Your task to perform on an android device: turn pop-ups off in chrome Image 0: 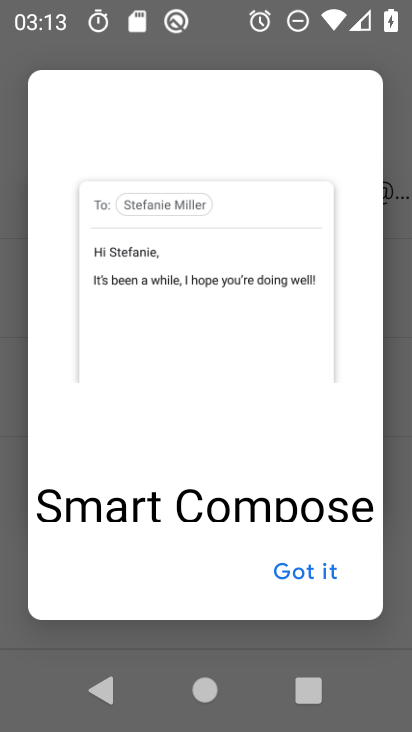
Step 0: press home button
Your task to perform on an android device: turn pop-ups off in chrome Image 1: 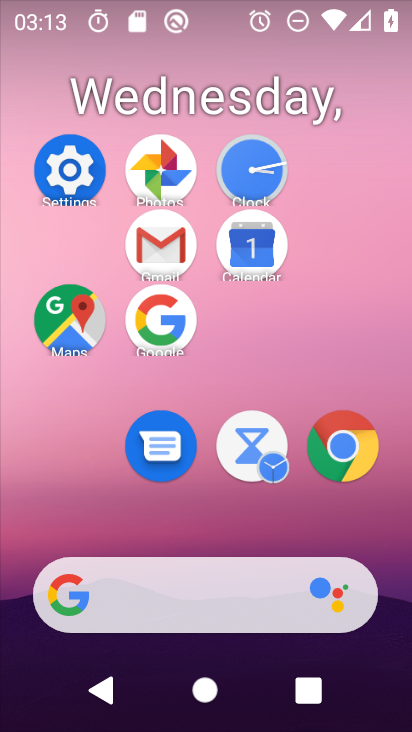
Step 1: click (370, 422)
Your task to perform on an android device: turn pop-ups off in chrome Image 2: 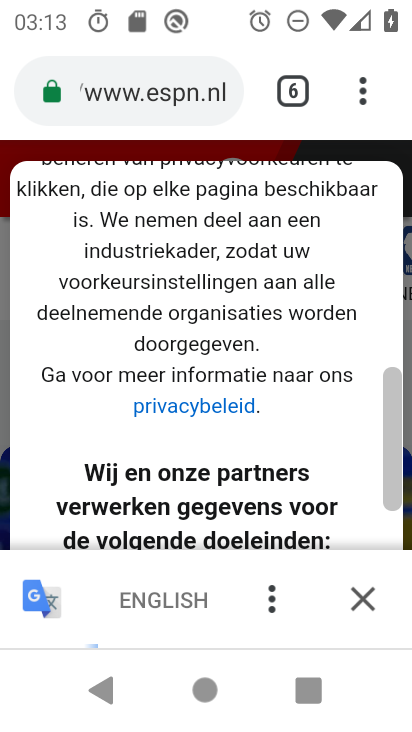
Step 2: click (367, 89)
Your task to perform on an android device: turn pop-ups off in chrome Image 3: 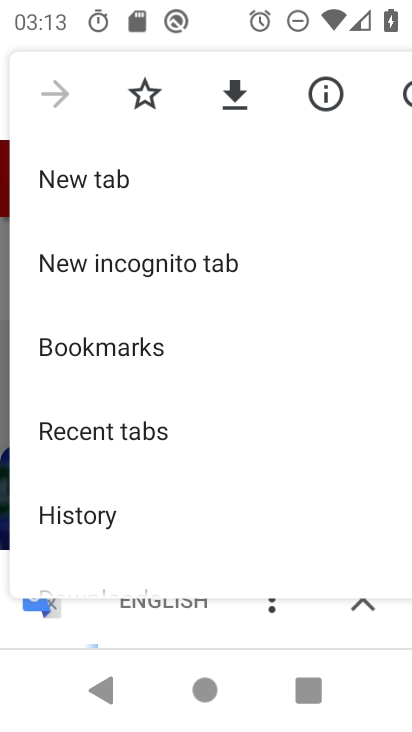
Step 3: drag from (228, 446) to (262, 126)
Your task to perform on an android device: turn pop-ups off in chrome Image 4: 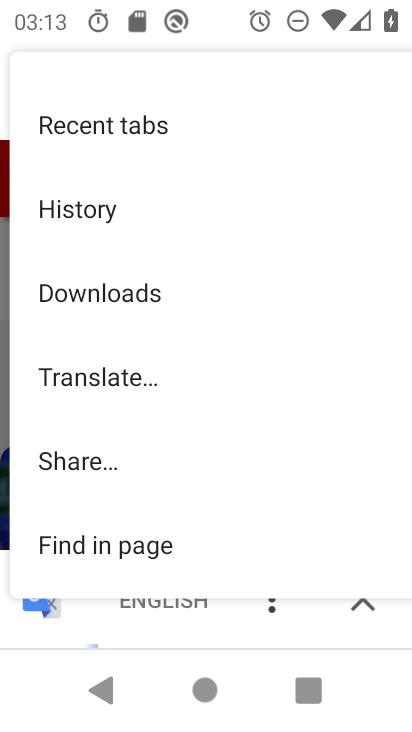
Step 4: drag from (248, 455) to (244, 42)
Your task to perform on an android device: turn pop-ups off in chrome Image 5: 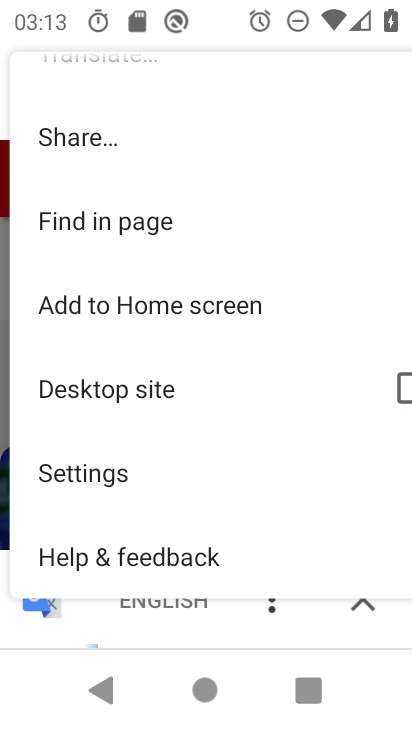
Step 5: click (186, 473)
Your task to perform on an android device: turn pop-ups off in chrome Image 6: 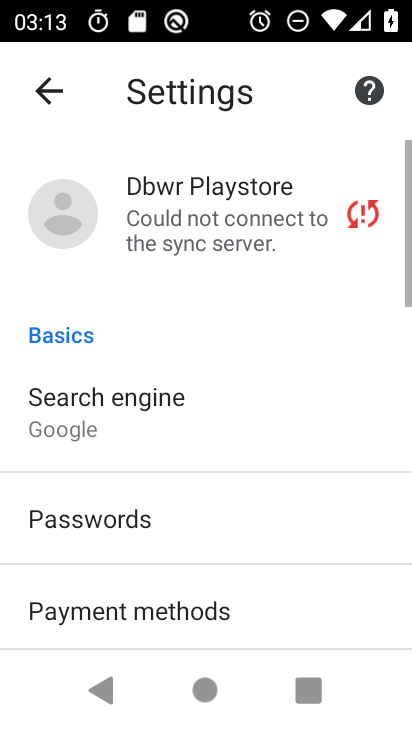
Step 6: drag from (186, 473) to (205, 67)
Your task to perform on an android device: turn pop-ups off in chrome Image 7: 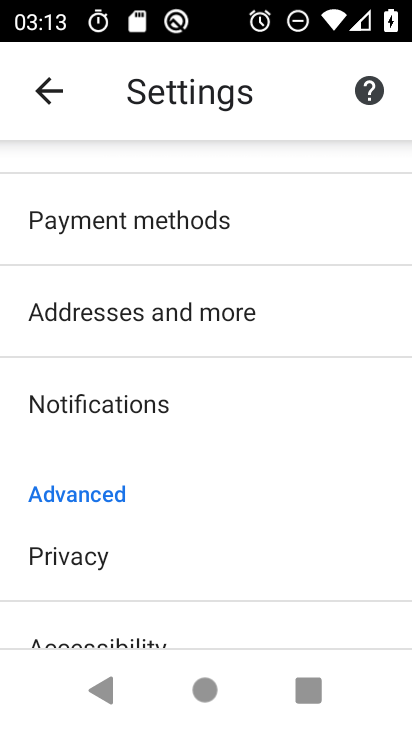
Step 7: drag from (172, 423) to (200, 55)
Your task to perform on an android device: turn pop-ups off in chrome Image 8: 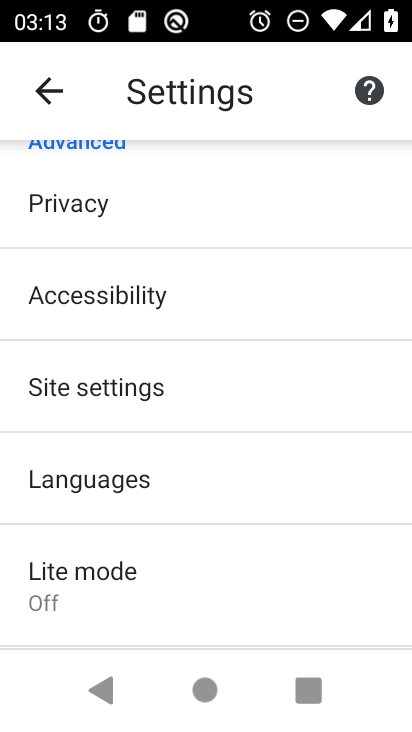
Step 8: click (197, 389)
Your task to perform on an android device: turn pop-ups off in chrome Image 9: 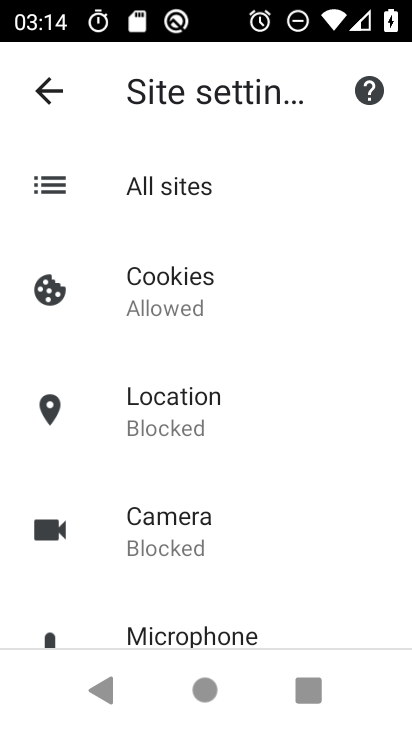
Step 9: drag from (204, 504) to (176, 22)
Your task to perform on an android device: turn pop-ups off in chrome Image 10: 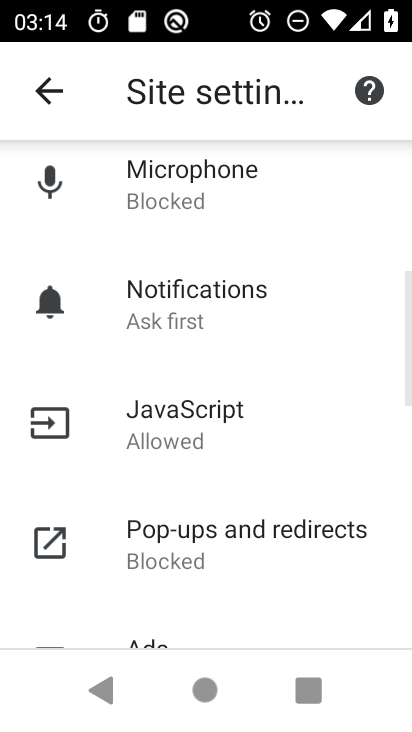
Step 10: click (283, 522)
Your task to perform on an android device: turn pop-ups off in chrome Image 11: 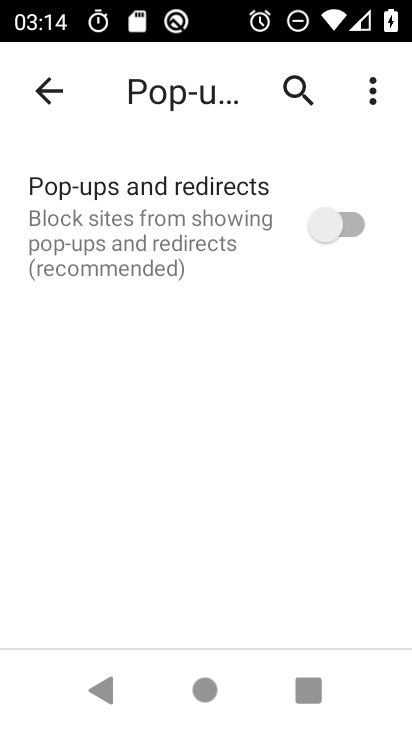
Step 11: task complete